Your task to perform on an android device: turn on the 24-hour format for clock Image 0: 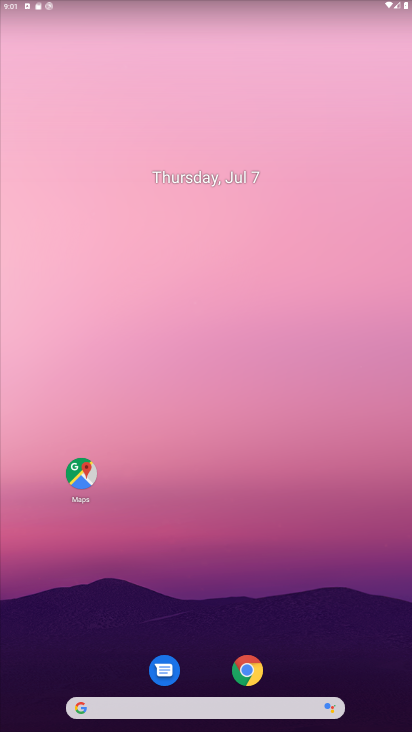
Step 0: drag from (29, 658) to (300, 78)
Your task to perform on an android device: turn on the 24-hour format for clock Image 1: 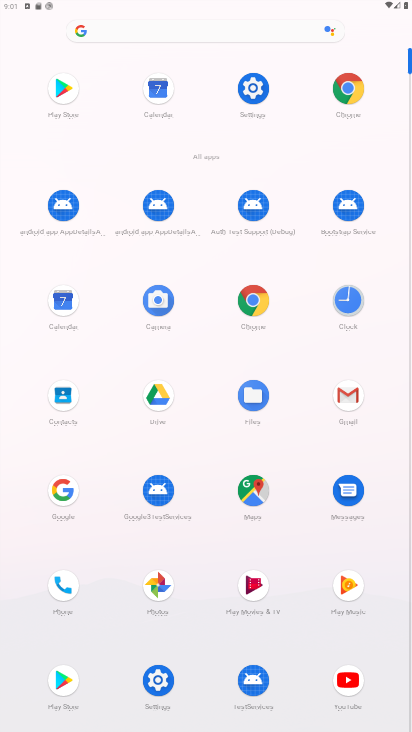
Step 1: click (348, 314)
Your task to perform on an android device: turn on the 24-hour format for clock Image 2: 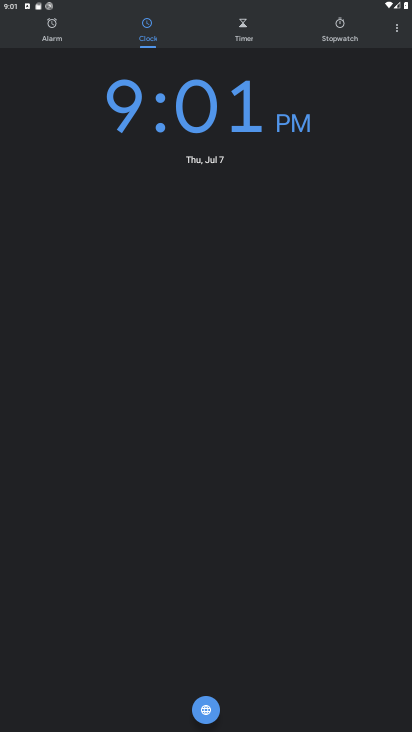
Step 2: click (394, 29)
Your task to perform on an android device: turn on the 24-hour format for clock Image 3: 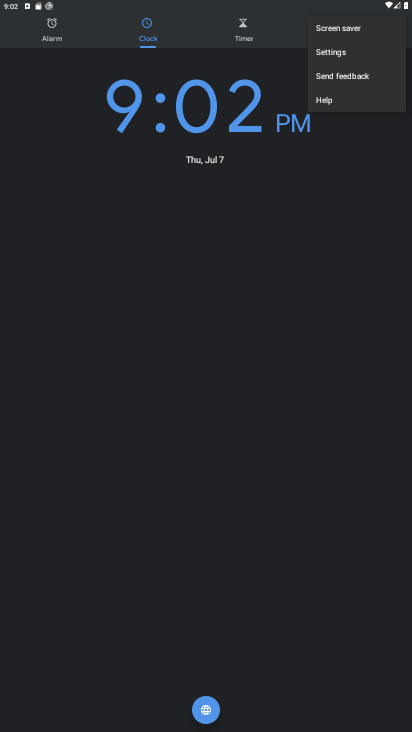
Step 3: click (352, 58)
Your task to perform on an android device: turn on the 24-hour format for clock Image 4: 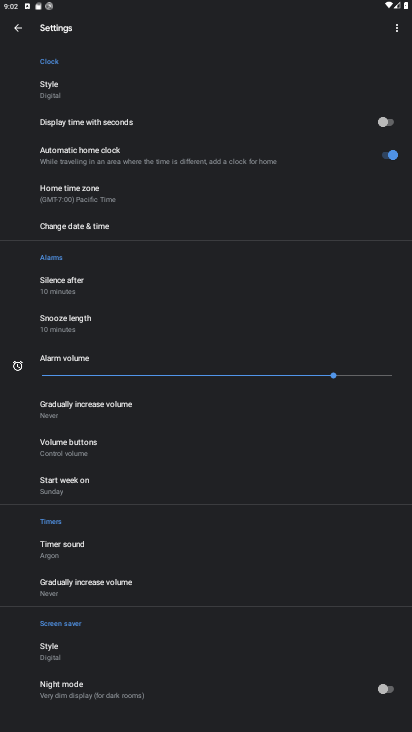
Step 4: click (84, 224)
Your task to perform on an android device: turn on the 24-hour format for clock Image 5: 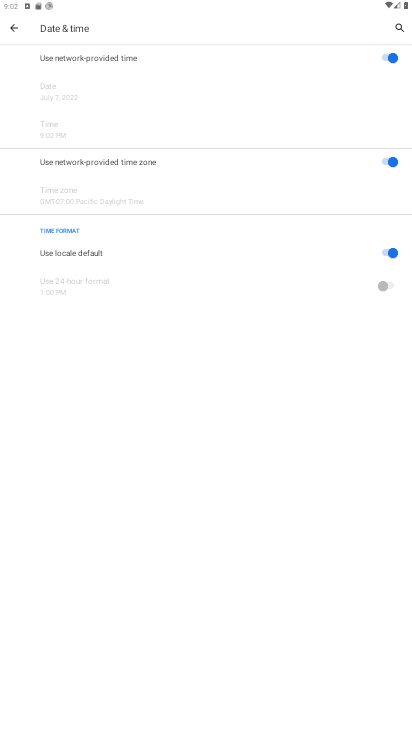
Step 5: click (388, 254)
Your task to perform on an android device: turn on the 24-hour format for clock Image 6: 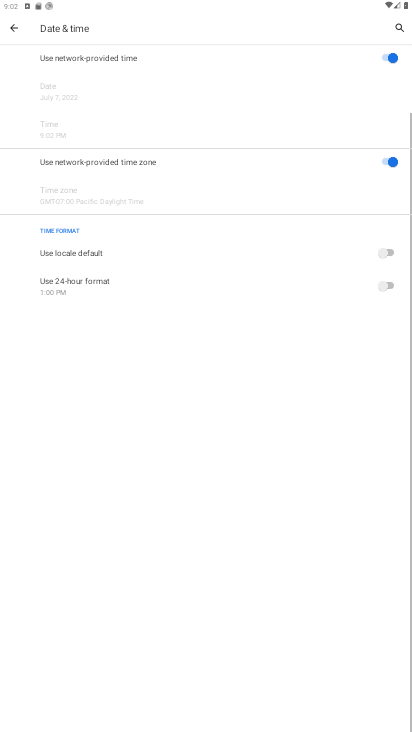
Step 6: click (384, 287)
Your task to perform on an android device: turn on the 24-hour format for clock Image 7: 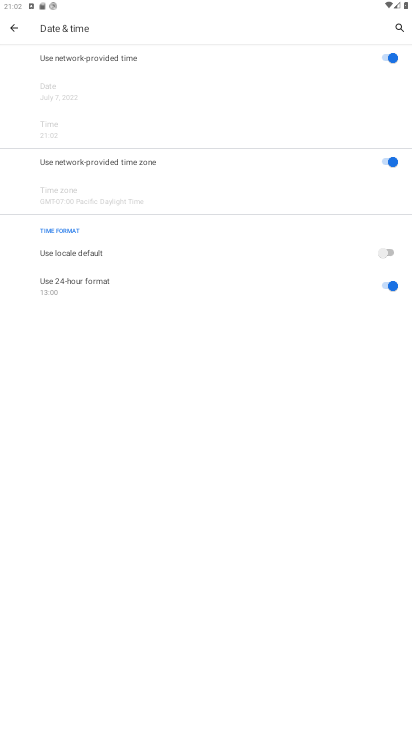
Step 7: task complete